Your task to perform on an android device: add a contact Image 0: 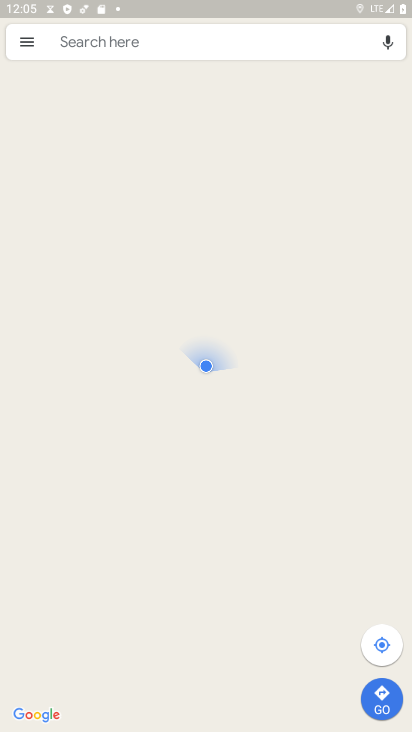
Step 0: press home button
Your task to perform on an android device: add a contact Image 1: 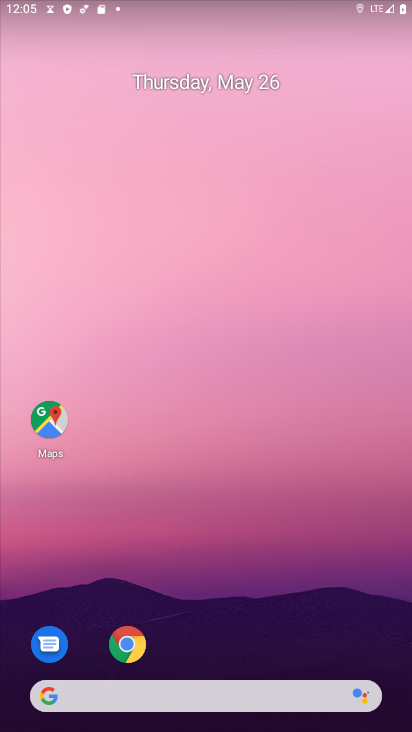
Step 1: drag from (241, 646) to (240, 56)
Your task to perform on an android device: add a contact Image 2: 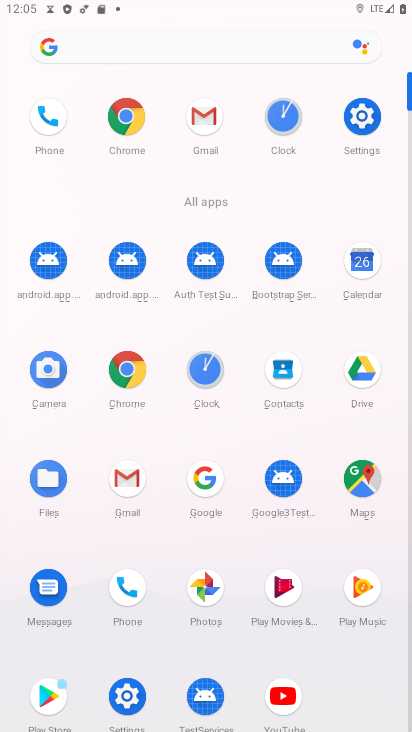
Step 2: click (288, 373)
Your task to perform on an android device: add a contact Image 3: 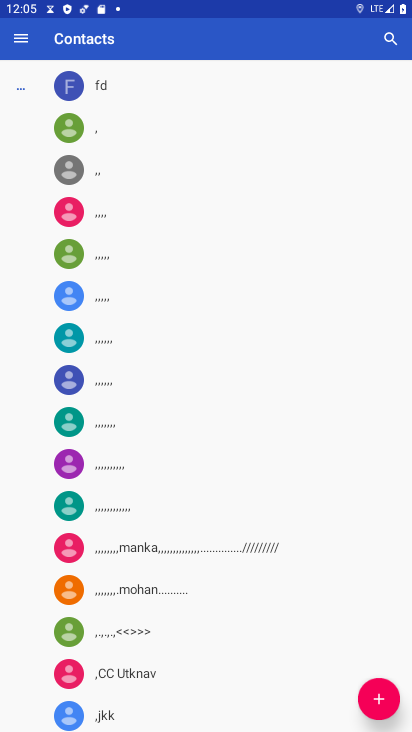
Step 3: click (382, 701)
Your task to perform on an android device: add a contact Image 4: 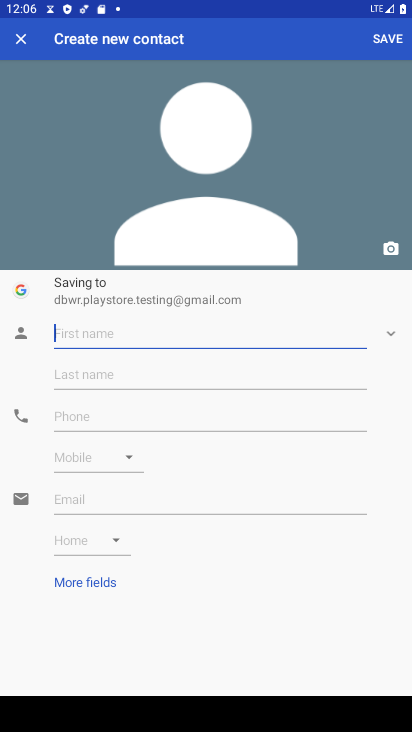
Step 4: click (198, 325)
Your task to perform on an android device: add a contact Image 5: 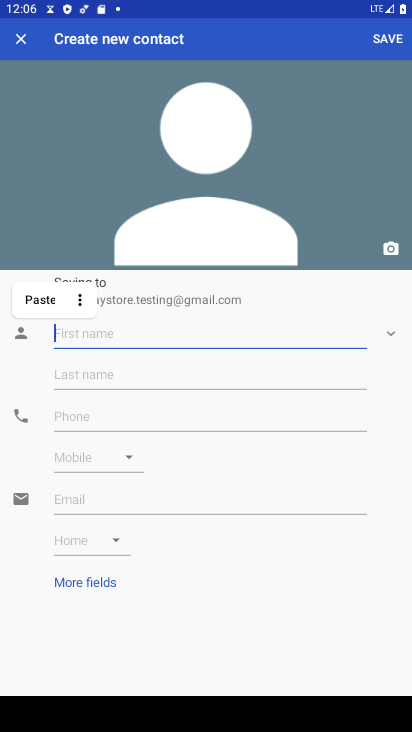
Step 5: type "Nawazuddiqui"
Your task to perform on an android device: add a contact Image 6: 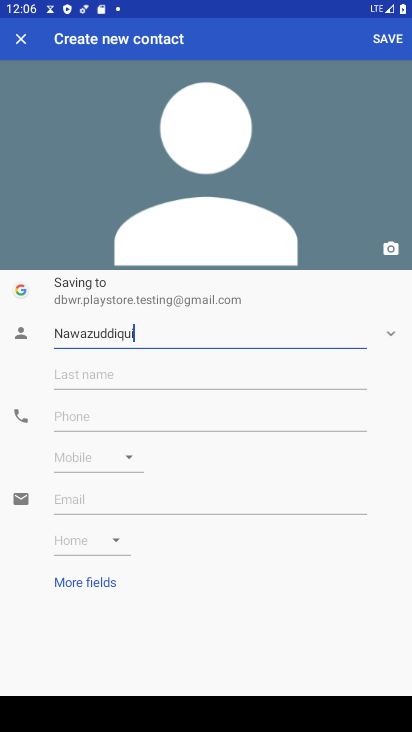
Step 6: click (311, 372)
Your task to perform on an android device: add a contact Image 7: 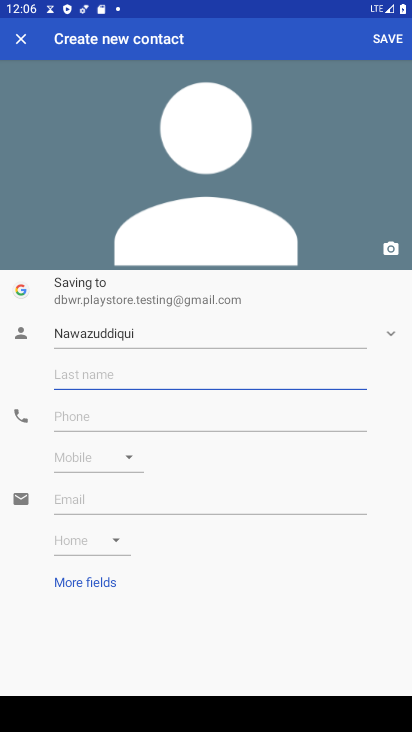
Step 7: type "Siddhaqui"
Your task to perform on an android device: add a contact Image 8: 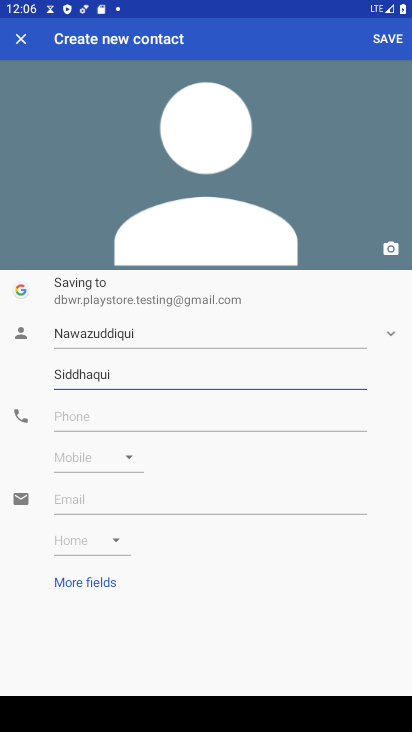
Step 8: click (118, 424)
Your task to perform on an android device: add a contact Image 9: 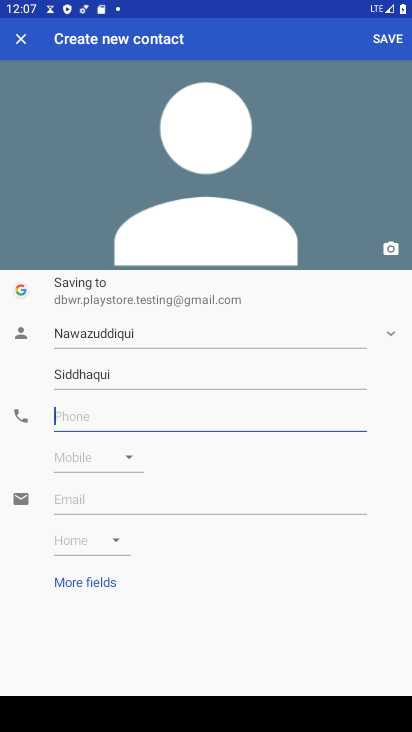
Step 9: type "0998866442211"
Your task to perform on an android device: add a contact Image 10: 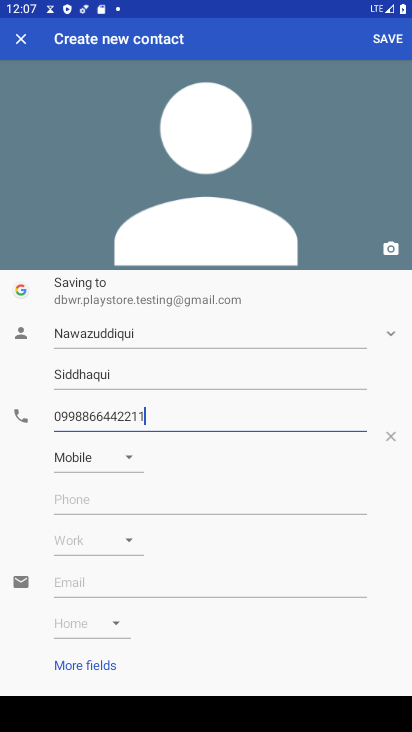
Step 10: click (405, 36)
Your task to perform on an android device: add a contact Image 11: 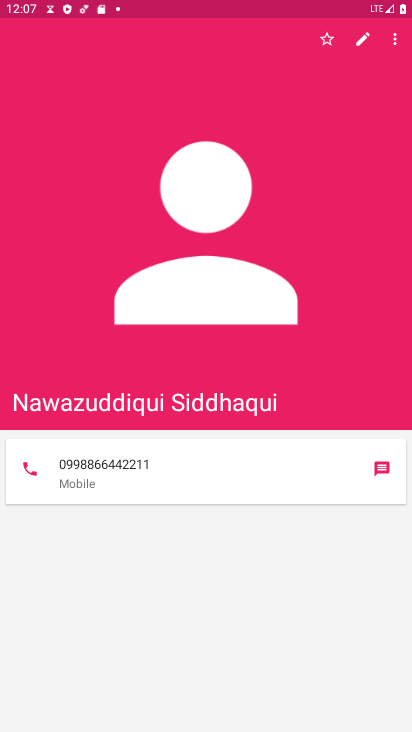
Step 11: task complete